Your task to perform on an android device: Open notification settings Image 0: 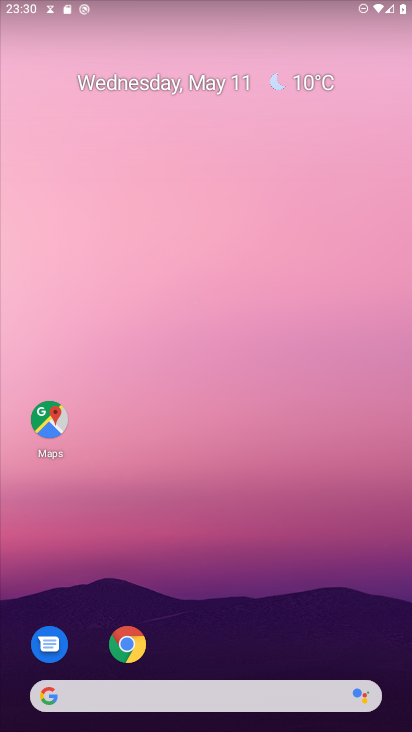
Step 0: drag from (321, 656) to (310, 133)
Your task to perform on an android device: Open notification settings Image 1: 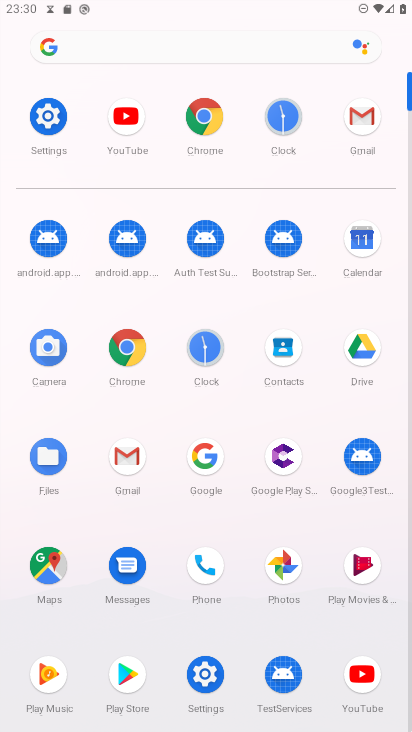
Step 1: click (55, 127)
Your task to perform on an android device: Open notification settings Image 2: 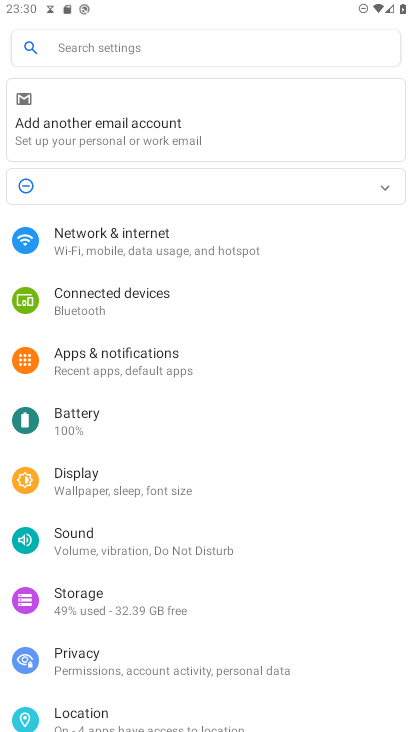
Step 2: click (99, 367)
Your task to perform on an android device: Open notification settings Image 3: 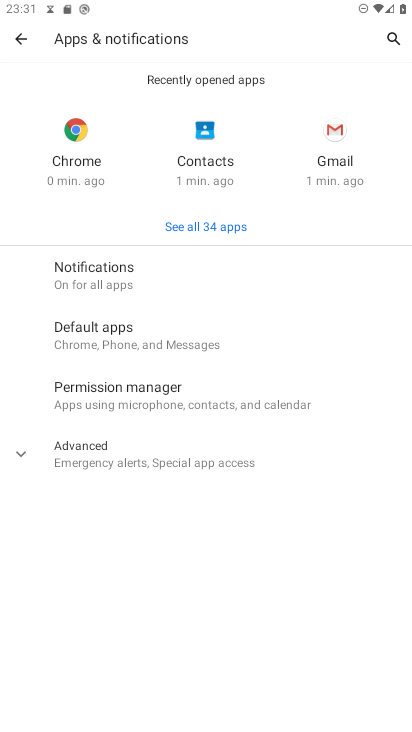
Step 3: task complete